Your task to perform on an android device: turn on priority inbox in the gmail app Image 0: 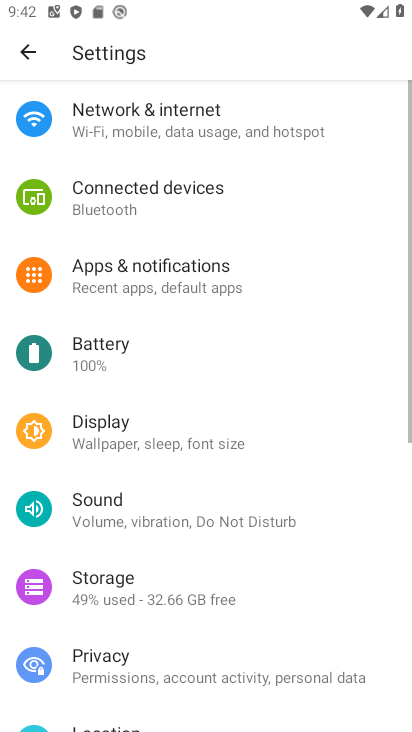
Step 0: press home button
Your task to perform on an android device: turn on priority inbox in the gmail app Image 1: 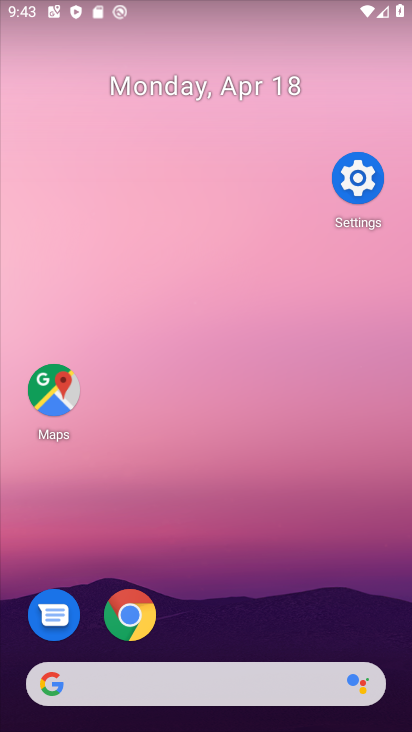
Step 1: drag from (145, 344) to (131, 235)
Your task to perform on an android device: turn on priority inbox in the gmail app Image 2: 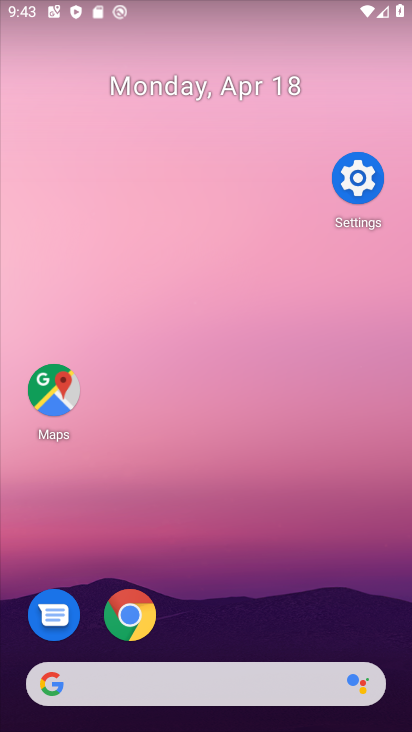
Step 2: drag from (254, 623) to (165, 238)
Your task to perform on an android device: turn on priority inbox in the gmail app Image 3: 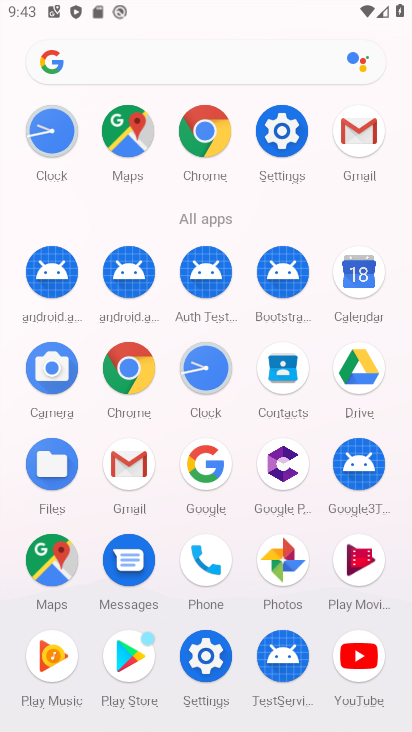
Step 3: click (360, 120)
Your task to perform on an android device: turn on priority inbox in the gmail app Image 4: 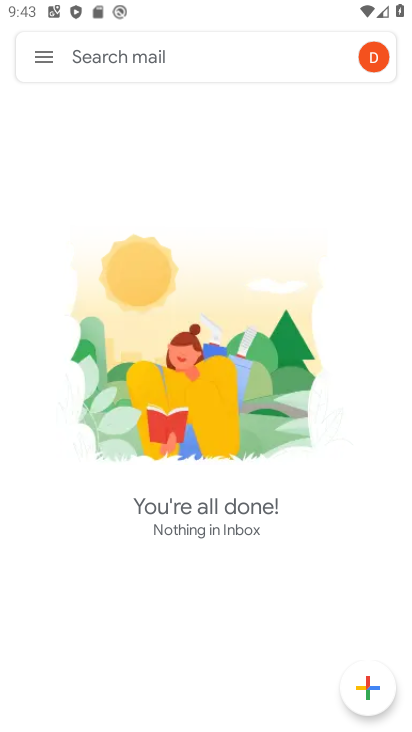
Step 4: click (43, 58)
Your task to perform on an android device: turn on priority inbox in the gmail app Image 5: 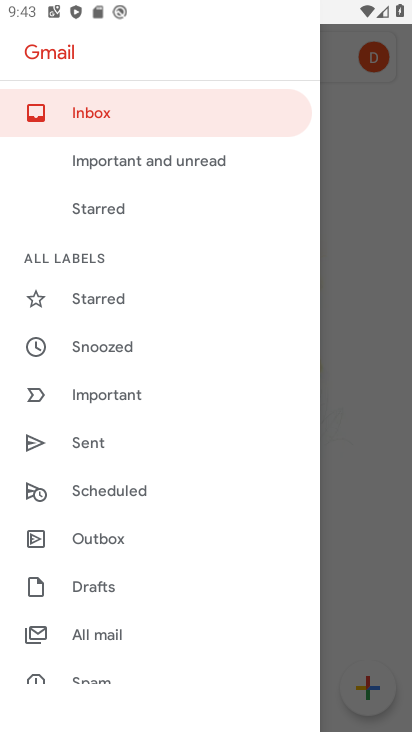
Step 5: click (175, 171)
Your task to perform on an android device: turn on priority inbox in the gmail app Image 6: 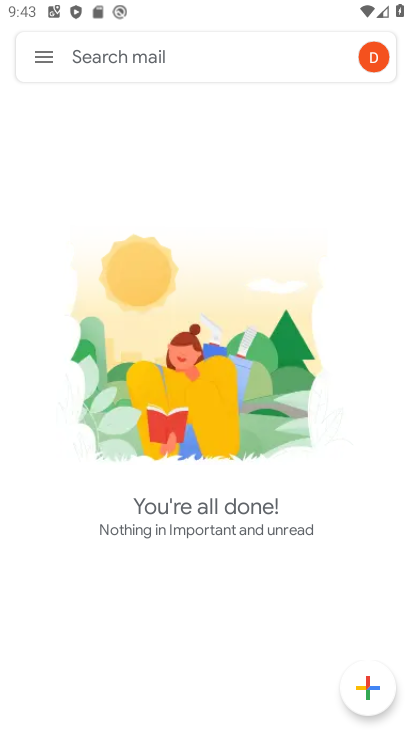
Step 6: click (36, 60)
Your task to perform on an android device: turn on priority inbox in the gmail app Image 7: 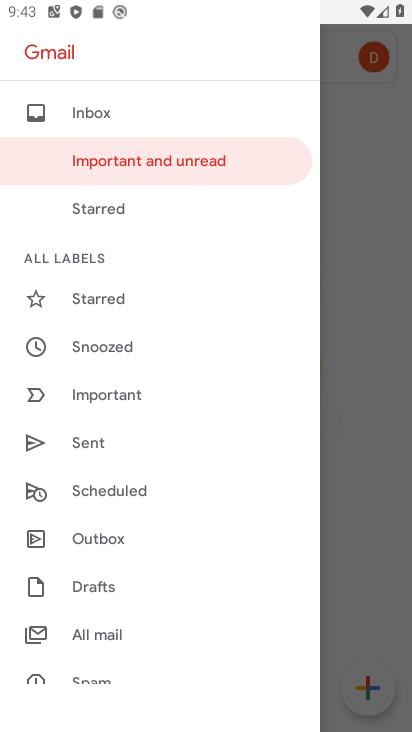
Step 7: click (179, 268)
Your task to perform on an android device: turn on priority inbox in the gmail app Image 8: 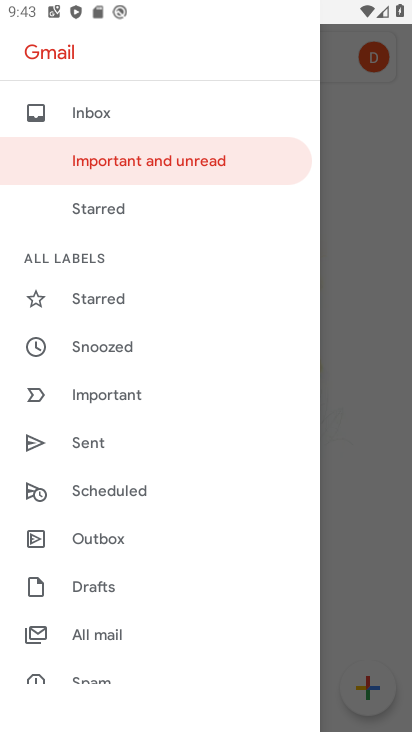
Step 8: drag from (244, 468) to (192, 130)
Your task to perform on an android device: turn on priority inbox in the gmail app Image 9: 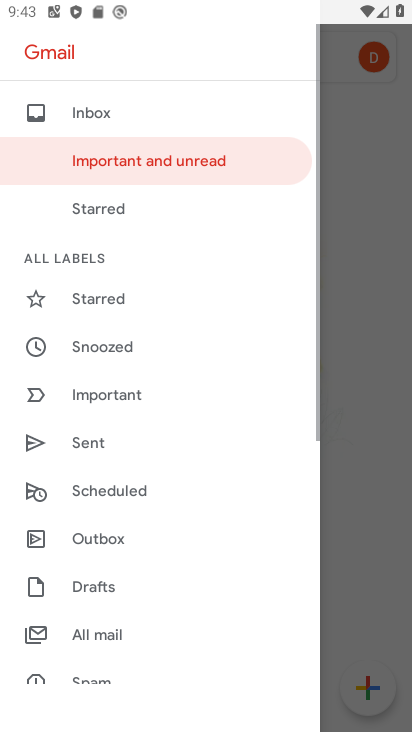
Step 9: drag from (156, 518) to (187, 190)
Your task to perform on an android device: turn on priority inbox in the gmail app Image 10: 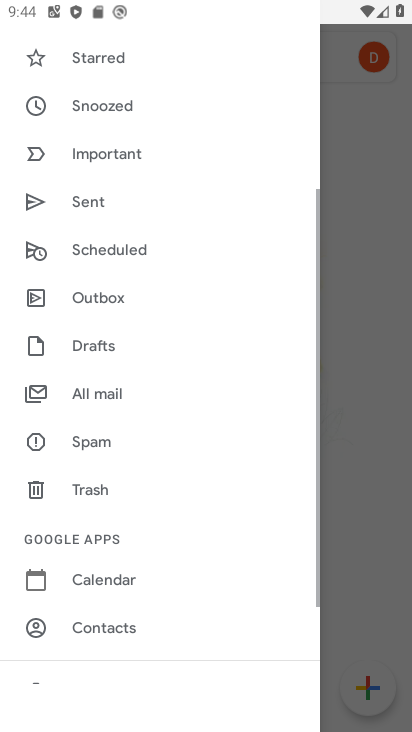
Step 10: drag from (227, 147) to (233, 112)
Your task to perform on an android device: turn on priority inbox in the gmail app Image 11: 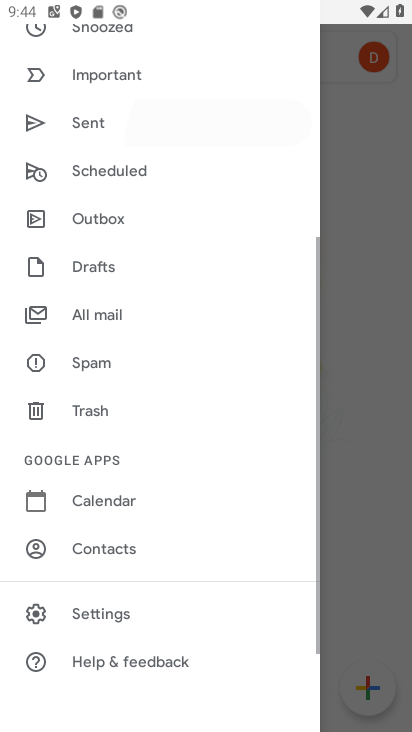
Step 11: drag from (187, 572) to (186, 280)
Your task to perform on an android device: turn on priority inbox in the gmail app Image 12: 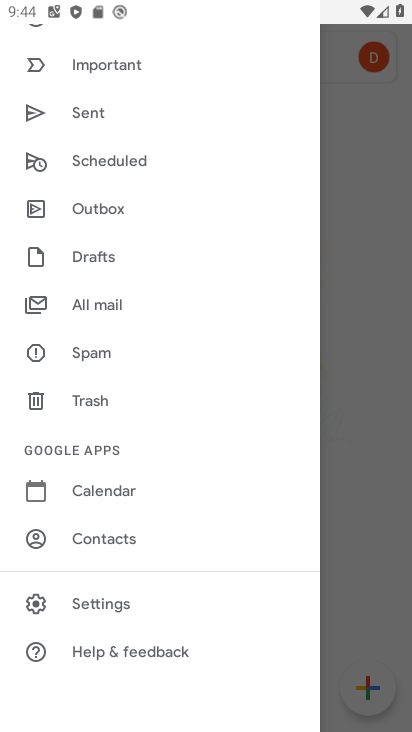
Step 12: click (91, 600)
Your task to perform on an android device: turn on priority inbox in the gmail app Image 13: 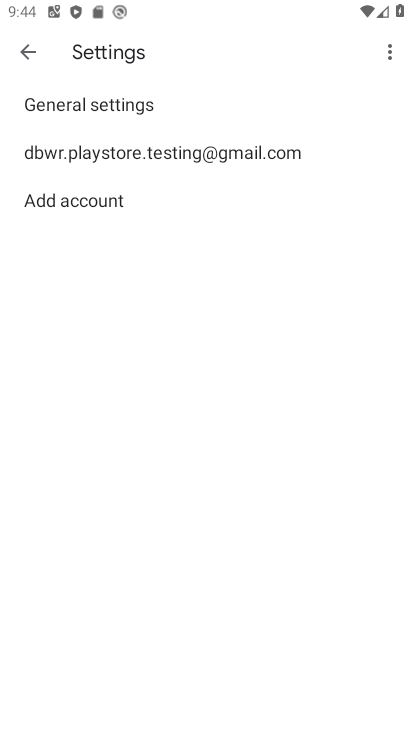
Step 13: click (106, 153)
Your task to perform on an android device: turn on priority inbox in the gmail app Image 14: 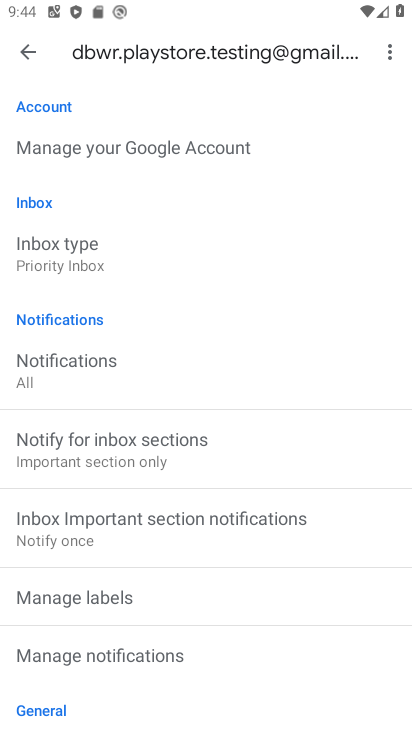
Step 14: click (49, 258)
Your task to perform on an android device: turn on priority inbox in the gmail app Image 15: 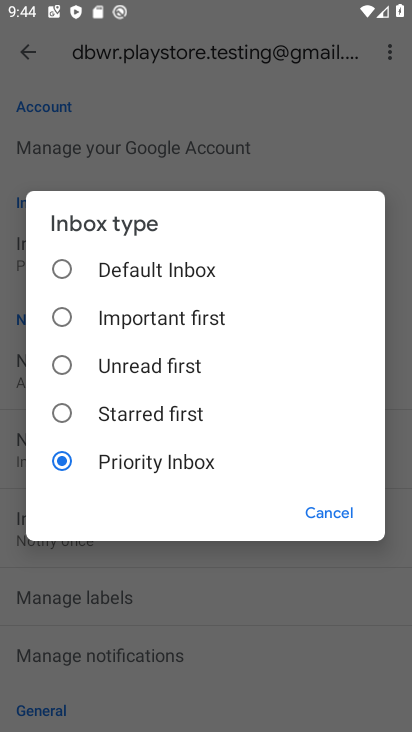
Step 15: click (337, 511)
Your task to perform on an android device: turn on priority inbox in the gmail app Image 16: 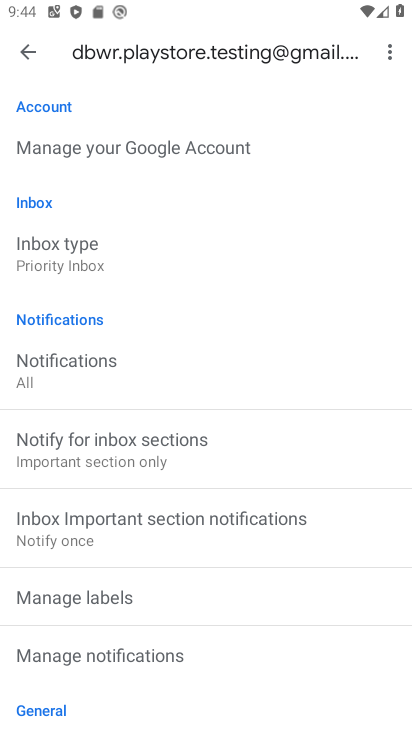
Step 16: task complete